Your task to perform on an android device: Clear the cart on target. Add dell xps to the cart on target Image 0: 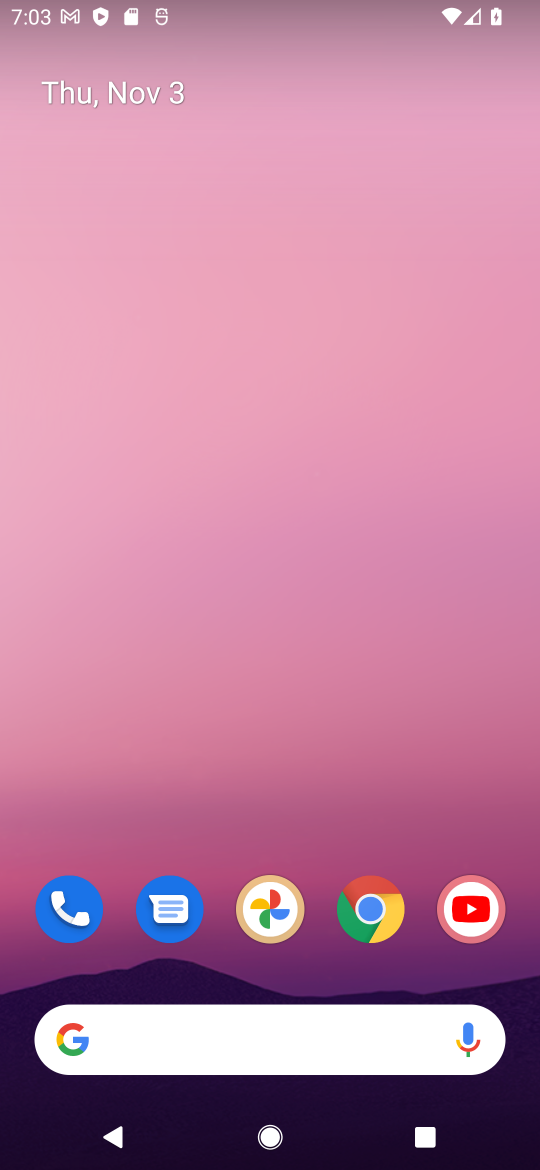
Step 0: click (330, 78)
Your task to perform on an android device: Clear the cart on target. Add dell xps to the cart on target Image 1: 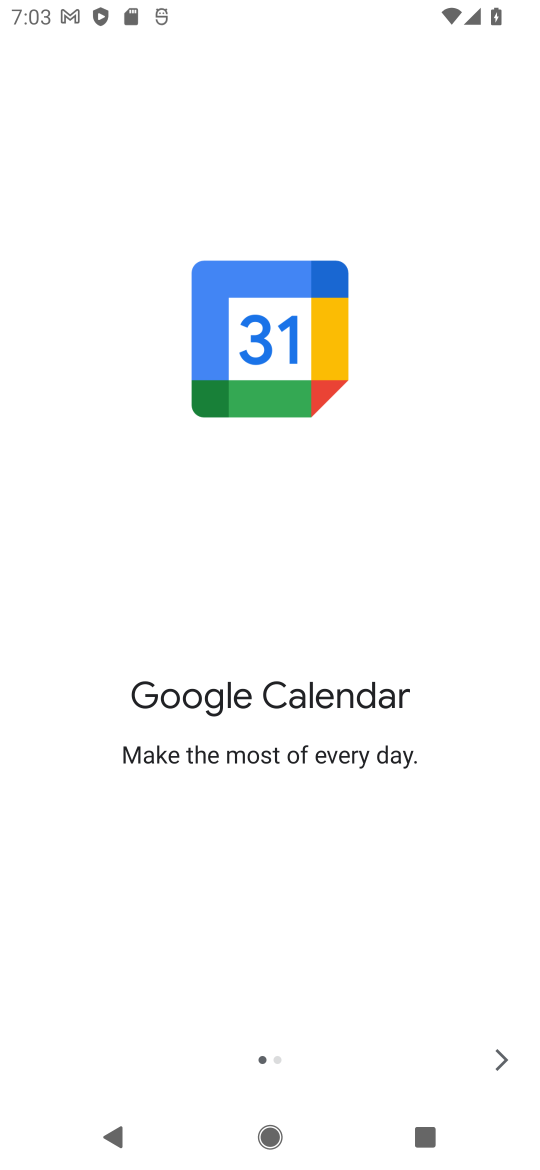
Step 1: press home button
Your task to perform on an android device: Clear the cart on target. Add dell xps to the cart on target Image 2: 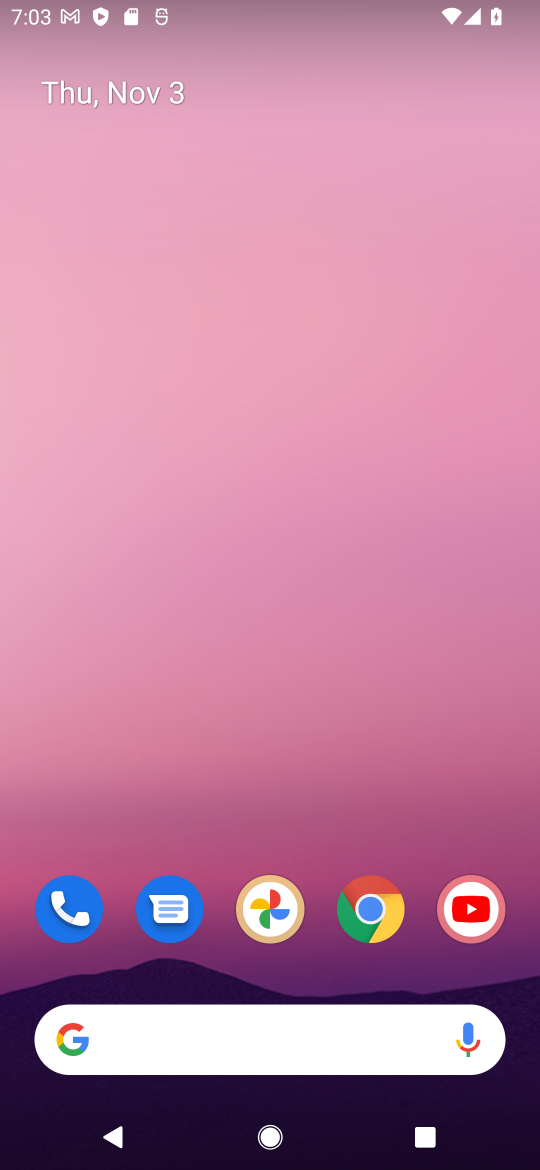
Step 2: drag from (201, 1090) to (201, 245)
Your task to perform on an android device: Clear the cart on target. Add dell xps to the cart on target Image 3: 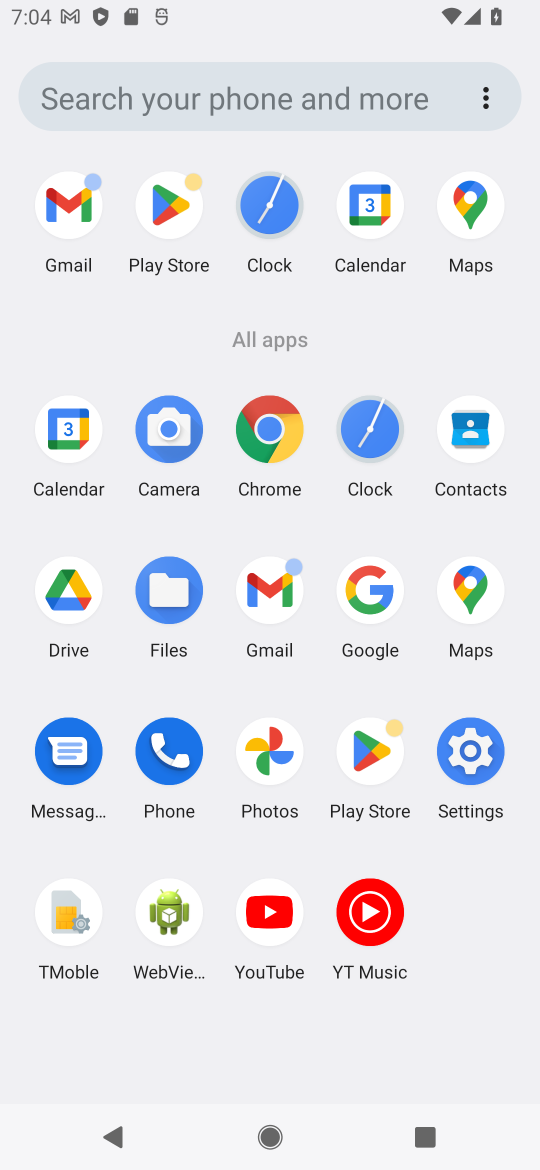
Step 3: click (363, 579)
Your task to perform on an android device: Clear the cart on target. Add dell xps to the cart on target Image 4: 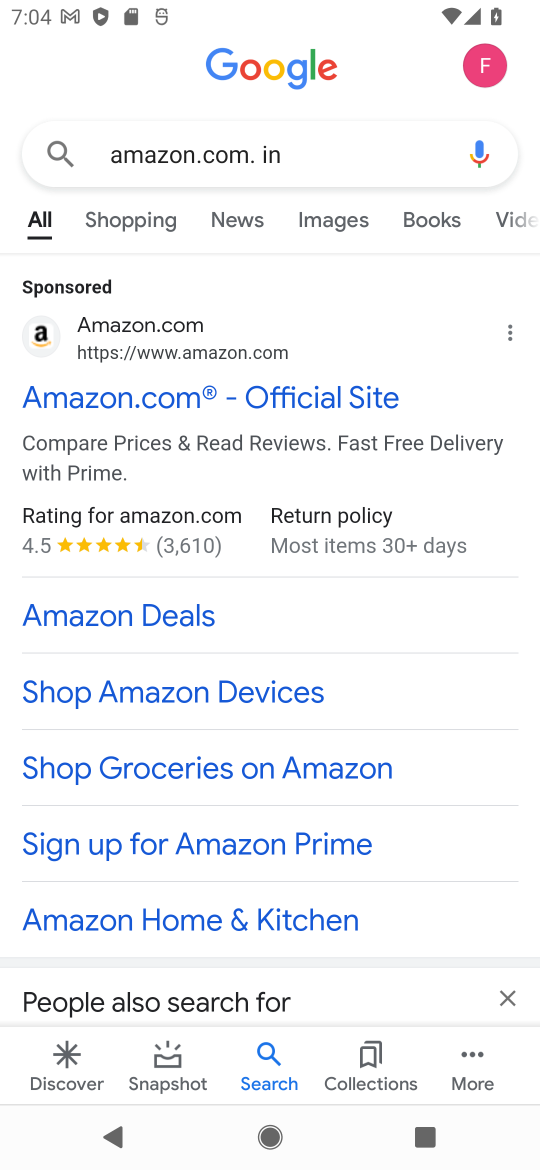
Step 4: click (275, 152)
Your task to perform on an android device: Clear the cart on target. Add dell xps to the cart on target Image 5: 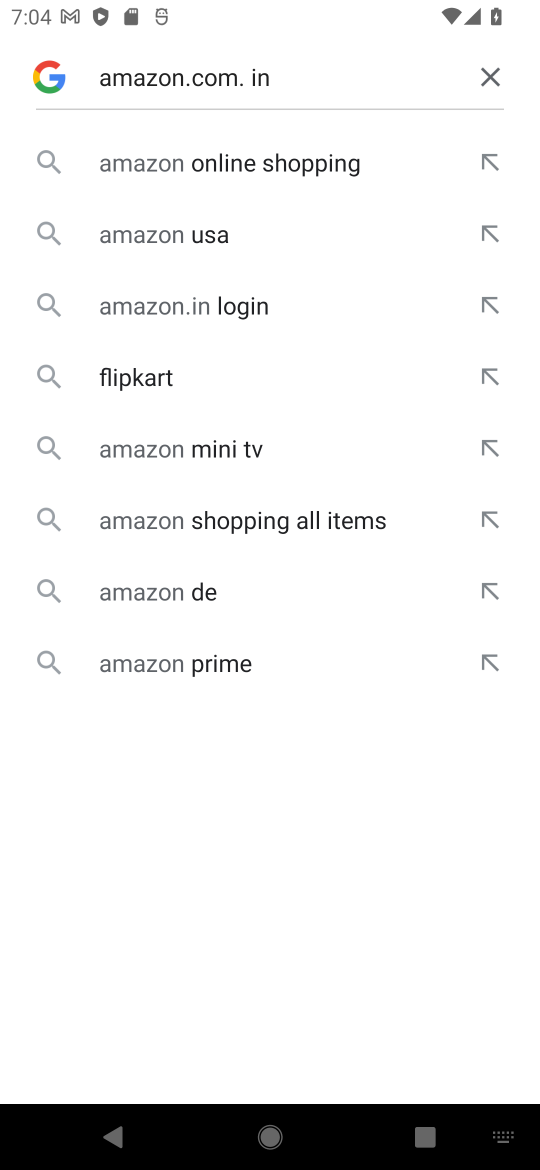
Step 5: click (488, 86)
Your task to perform on an android device: Clear the cart on target. Add dell xps to the cart on target Image 6: 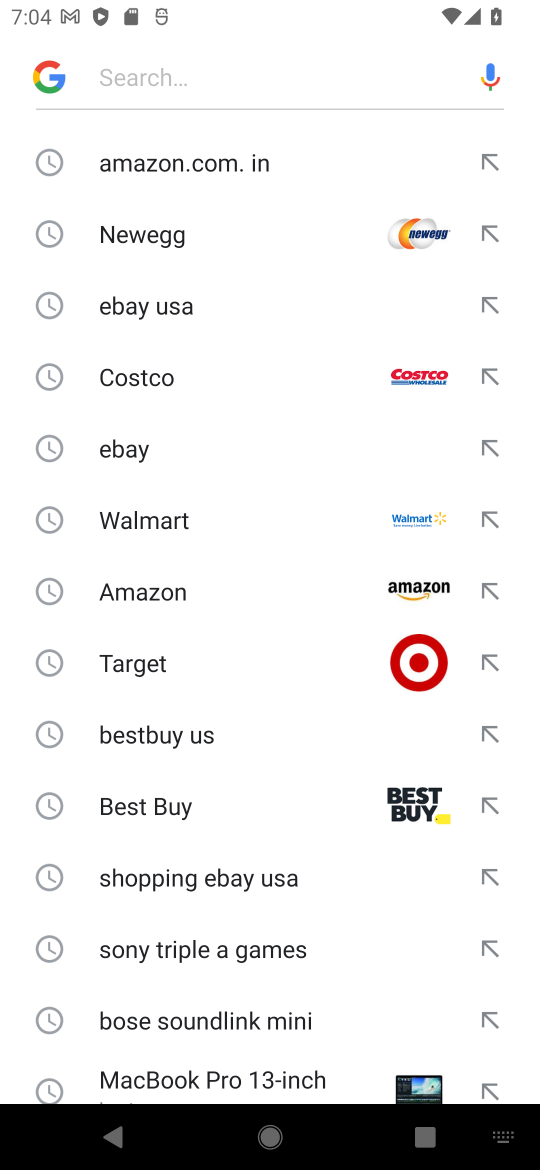
Step 6: click (241, 66)
Your task to perform on an android device: Clear the cart on target. Add dell xps to the cart on target Image 7: 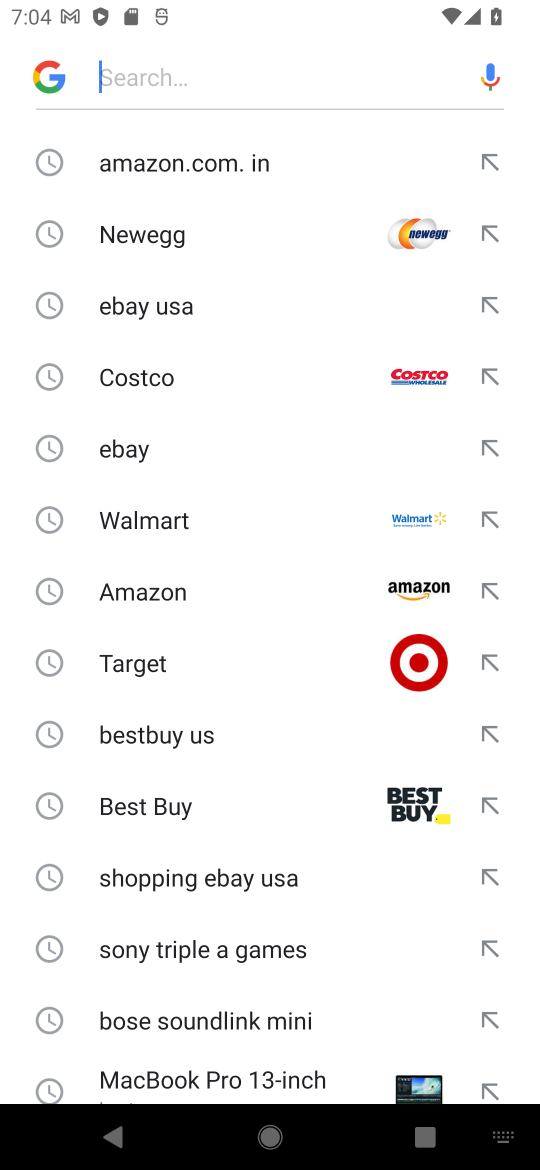
Step 7: type "target "
Your task to perform on an android device: Clear the cart on target. Add dell xps to the cart on target Image 8: 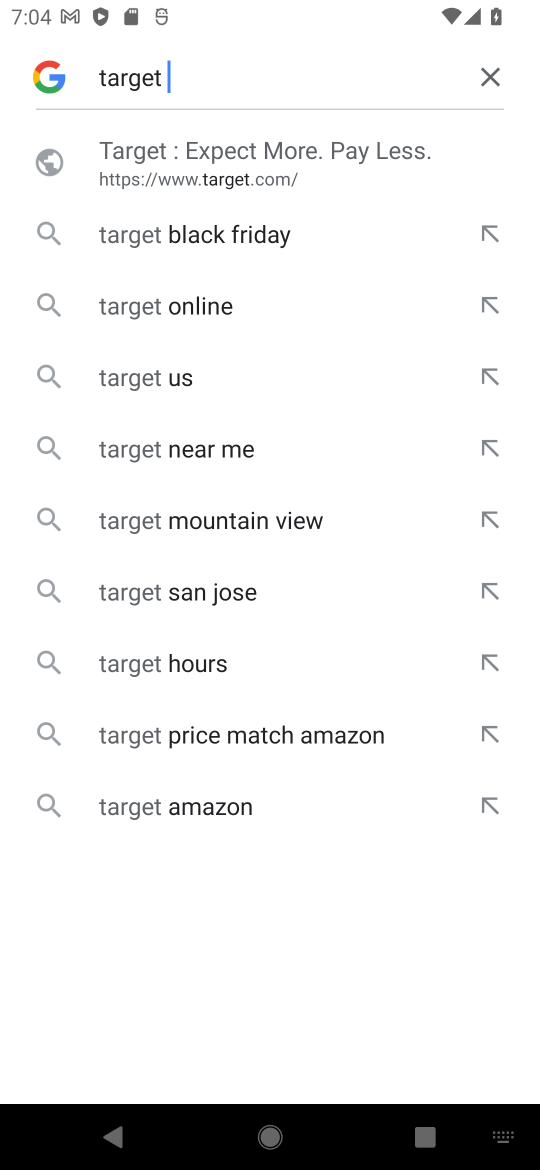
Step 8: click (250, 165)
Your task to perform on an android device: Clear the cart on target. Add dell xps to the cart on target Image 9: 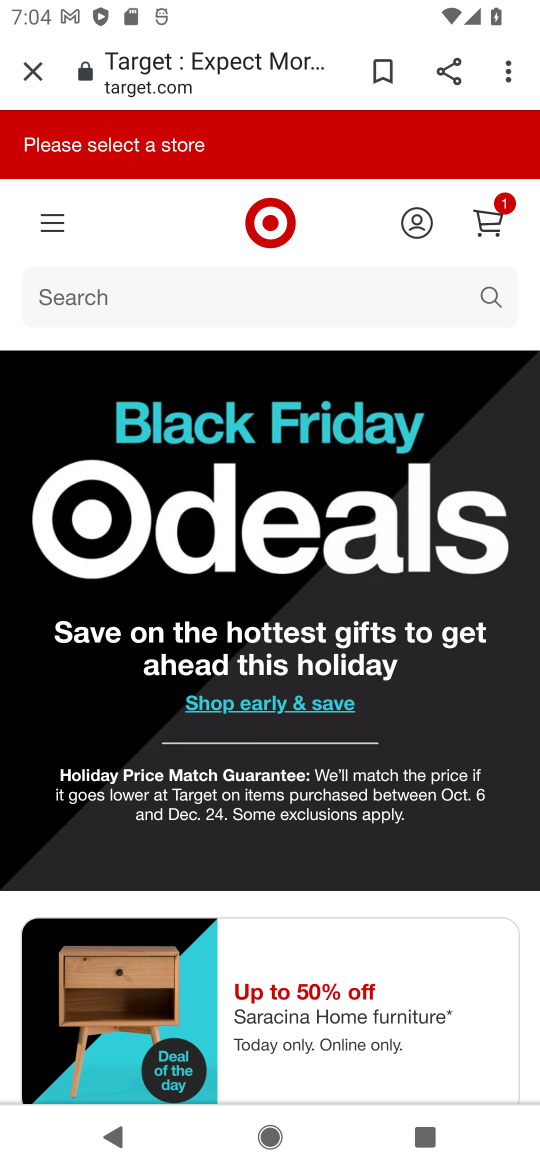
Step 9: click (248, 289)
Your task to perform on an android device: Clear the cart on target. Add dell xps to the cart on target Image 10: 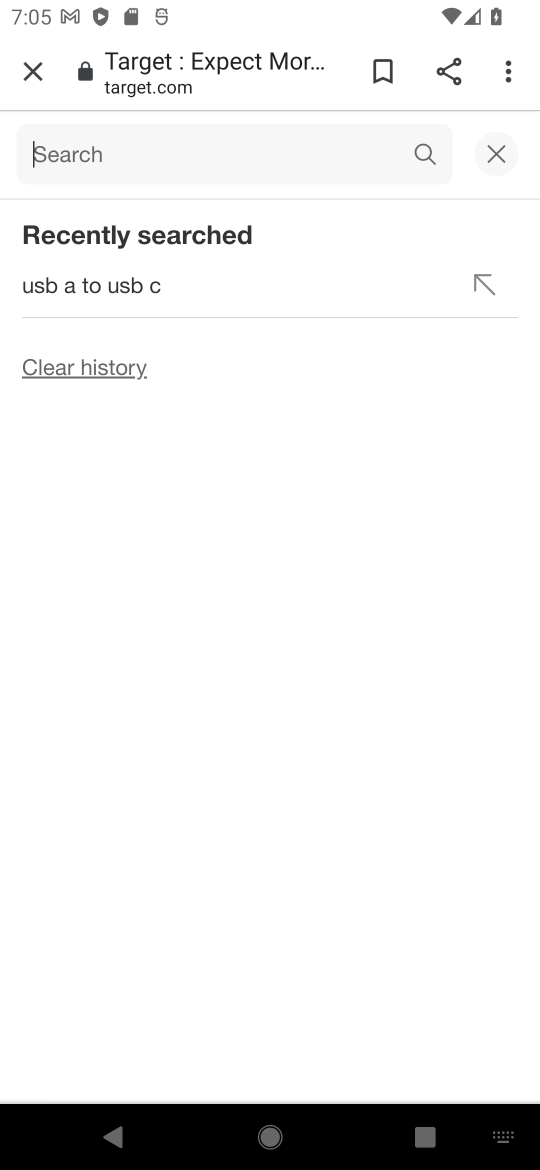
Step 10: click (217, 147)
Your task to perform on an android device: Clear the cart on target. Add dell xps to the cart on target Image 11: 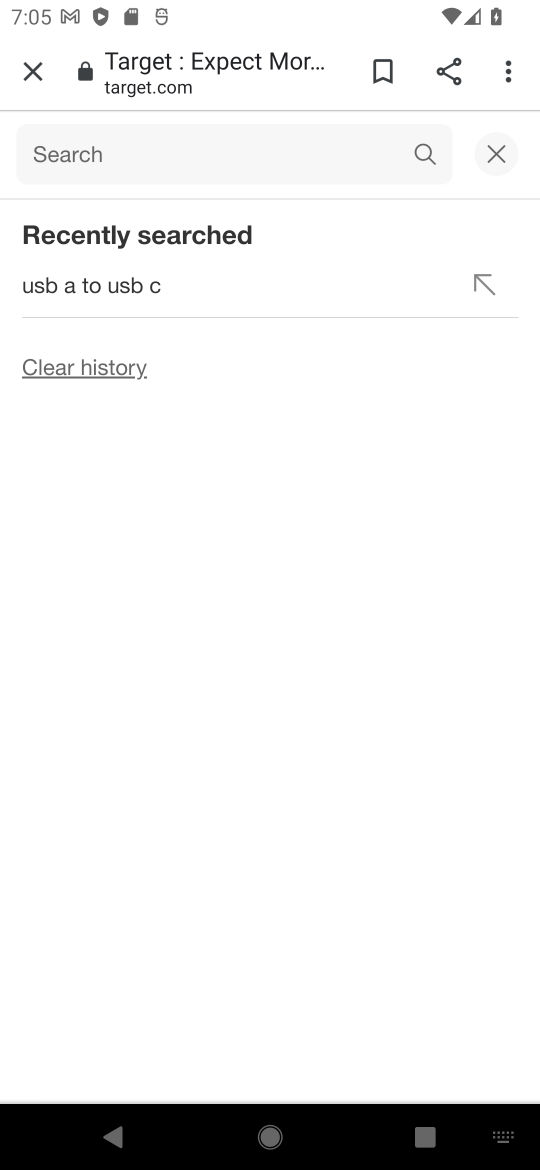
Step 11: type "dell xps  "
Your task to perform on an android device: Clear the cart on target. Add dell xps to the cart on target Image 12: 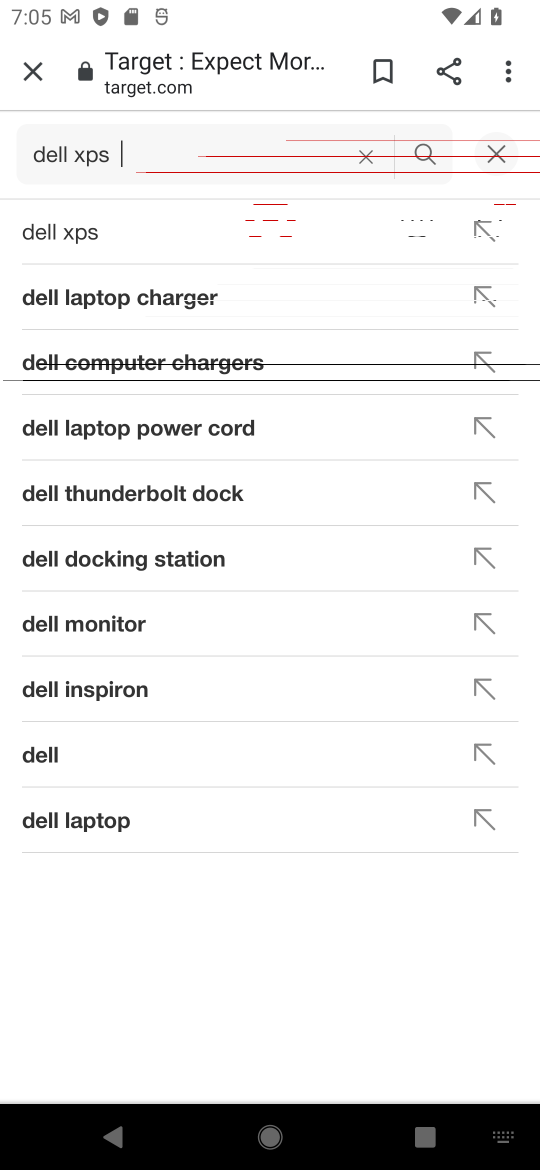
Step 12: click (124, 218)
Your task to perform on an android device: Clear the cart on target. Add dell xps to the cart on target Image 13: 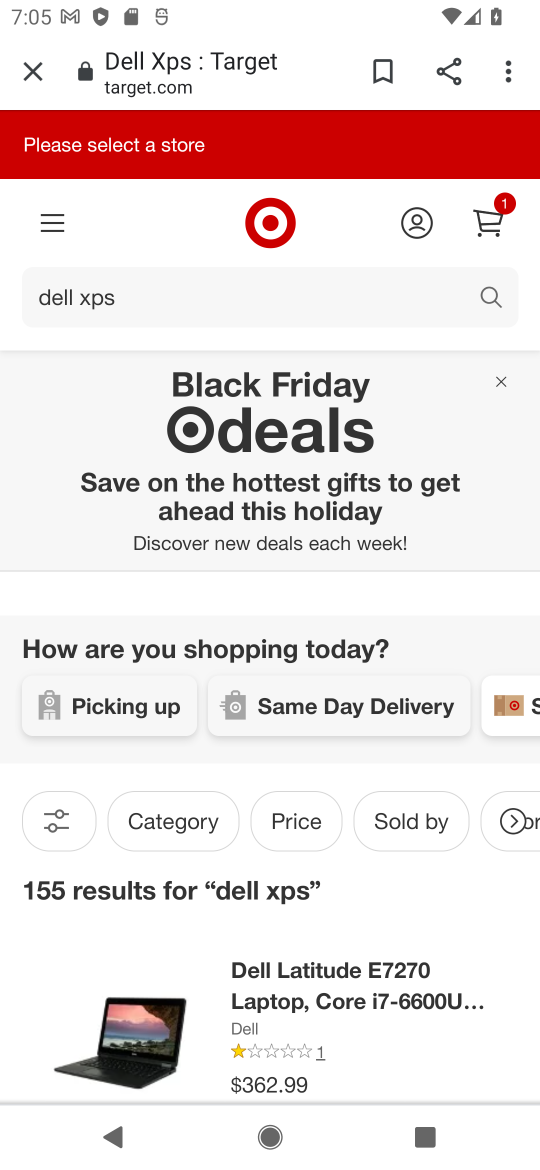
Step 13: drag from (283, 1038) to (317, 467)
Your task to perform on an android device: Clear the cart on target. Add dell xps to the cart on target Image 14: 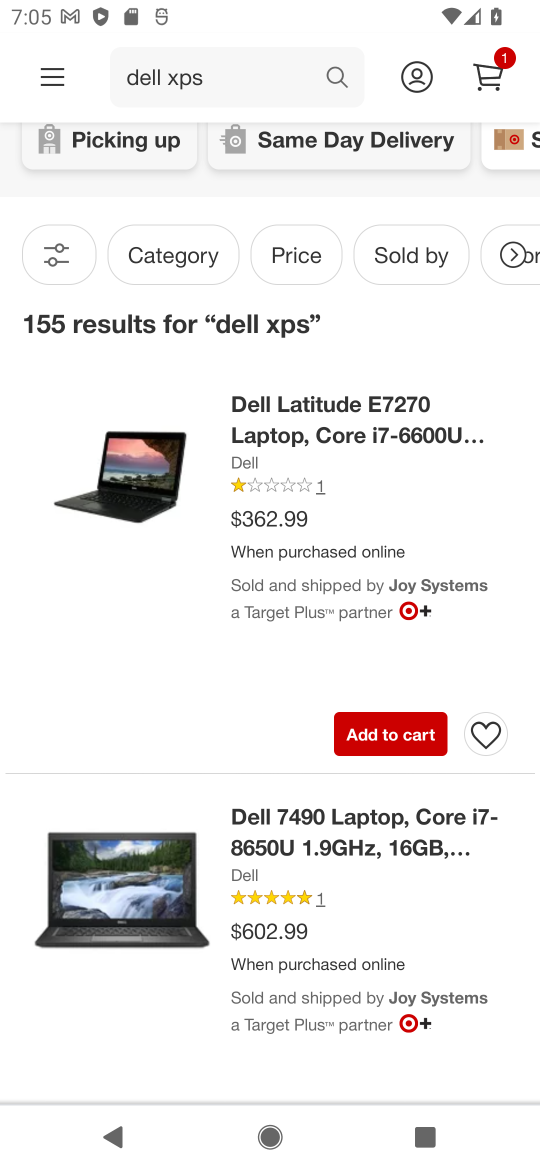
Step 14: click (375, 731)
Your task to perform on an android device: Clear the cart on target. Add dell xps to the cart on target Image 15: 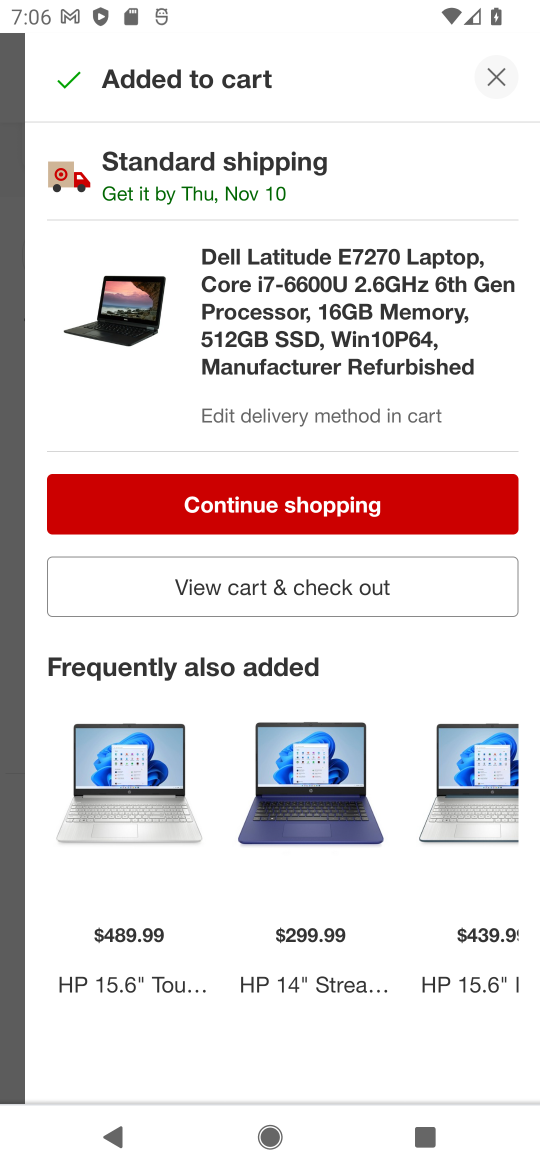
Step 15: task complete